Your task to perform on an android device: open app "Nova Launcher" (install if not already installed), go to login, and select forgot password Image 0: 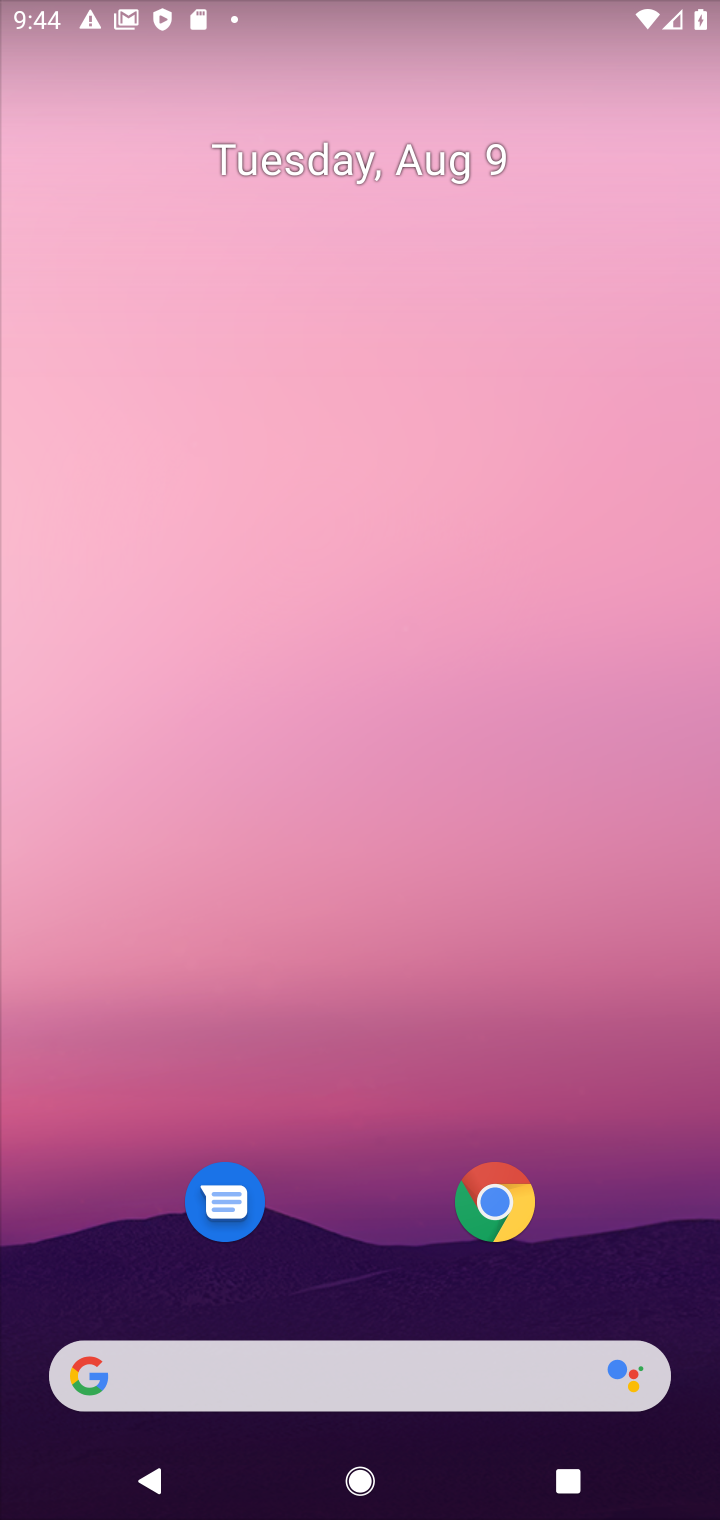
Step 0: drag from (344, 1101) to (365, 237)
Your task to perform on an android device: open app "Nova Launcher" (install if not already installed), go to login, and select forgot password Image 1: 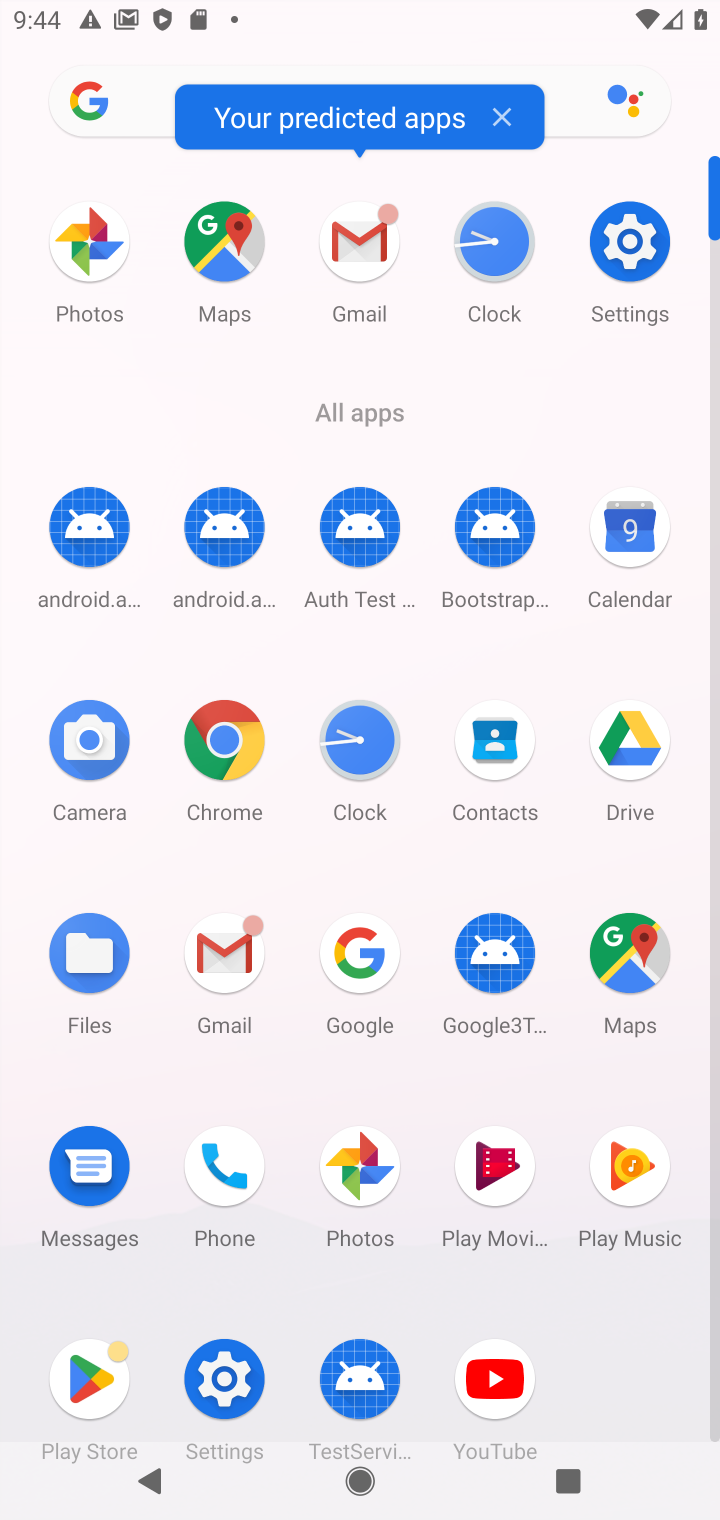
Step 1: click (77, 1391)
Your task to perform on an android device: open app "Nova Launcher" (install if not already installed), go to login, and select forgot password Image 2: 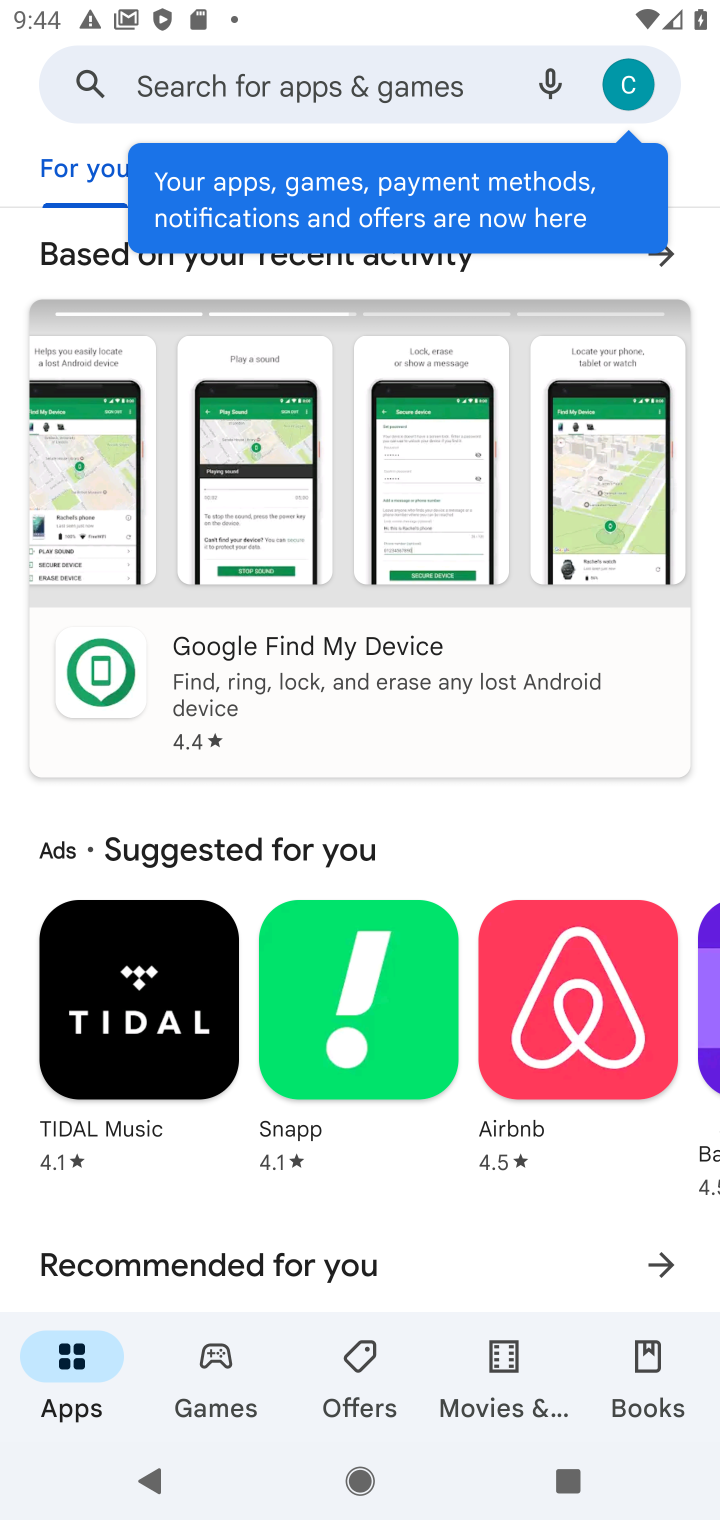
Step 2: click (233, 63)
Your task to perform on an android device: open app "Nova Launcher" (install if not already installed), go to login, and select forgot password Image 3: 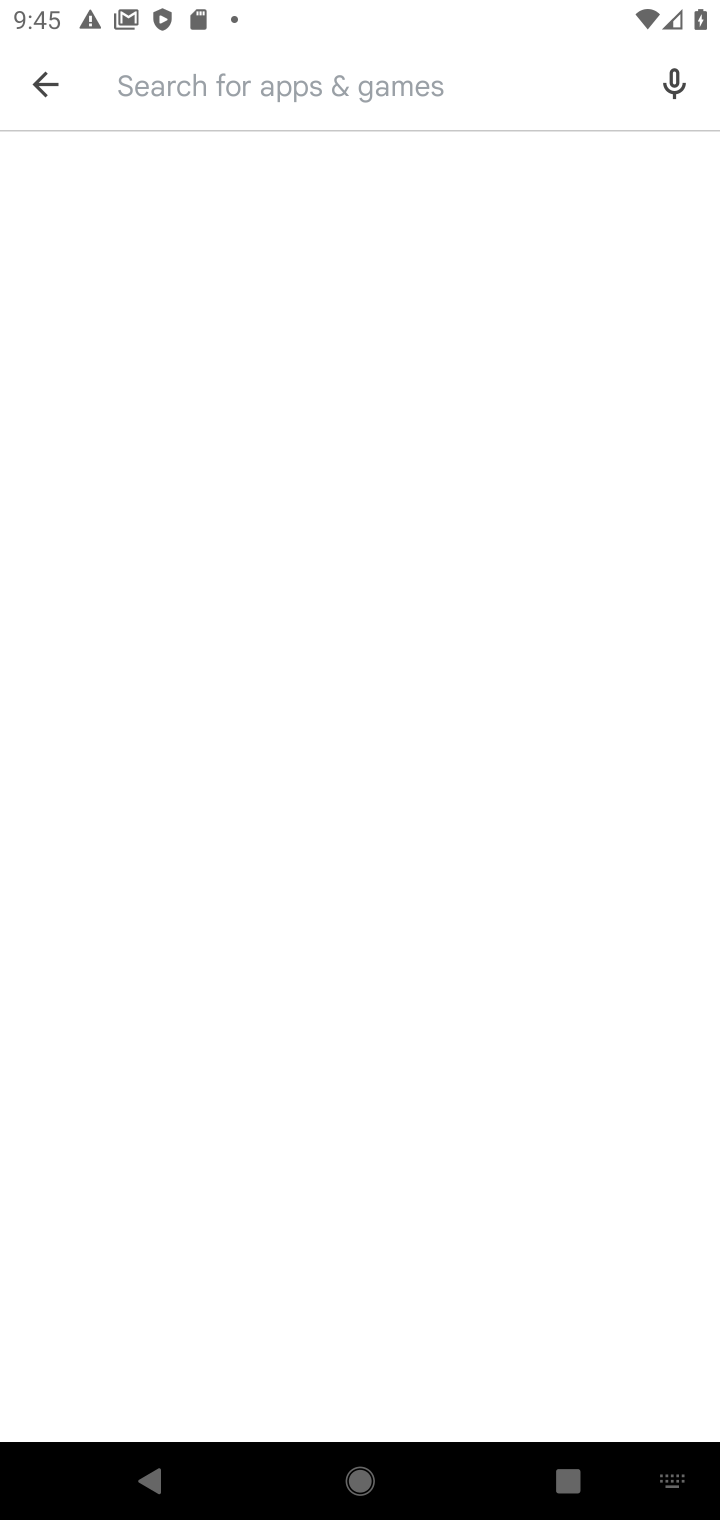
Step 3: type "nova launcher"
Your task to perform on an android device: open app "Nova Launcher" (install if not already installed), go to login, and select forgot password Image 4: 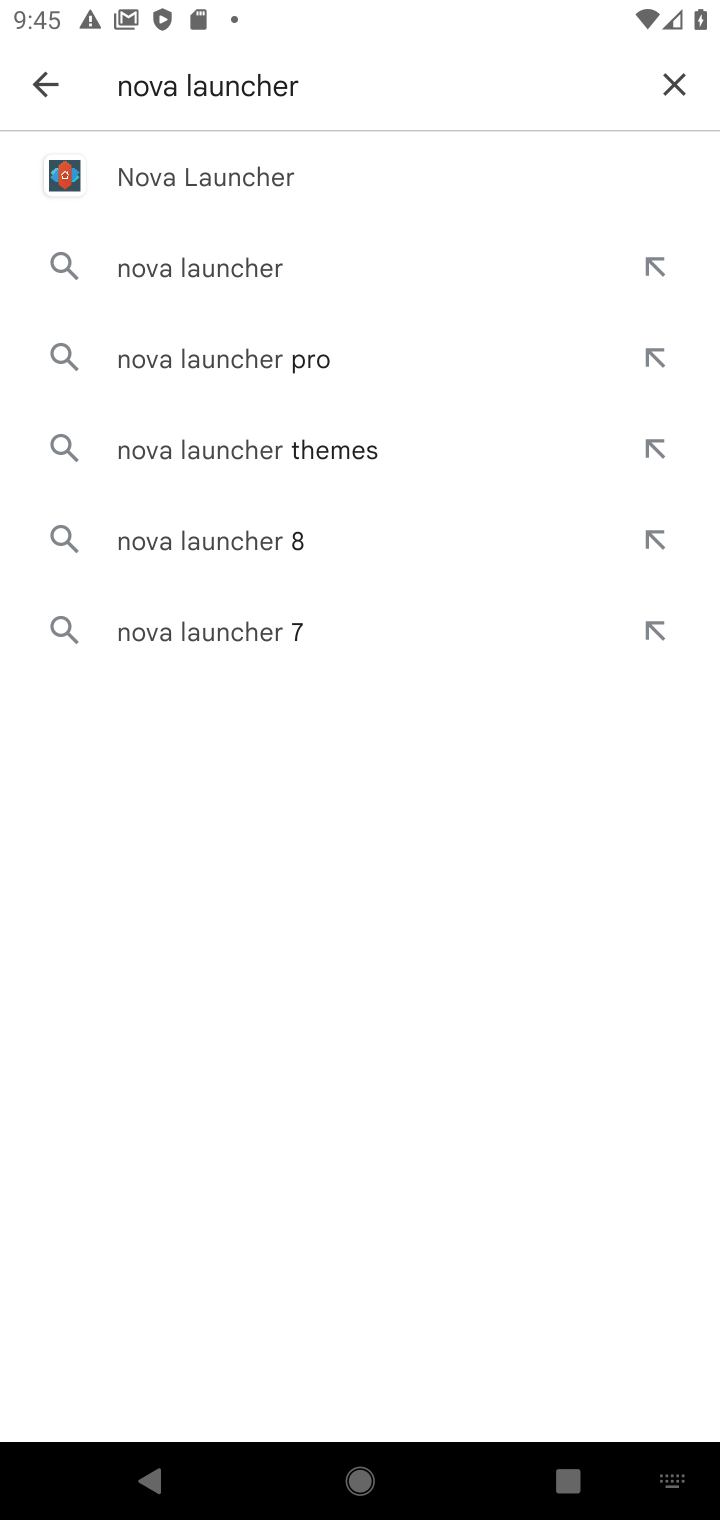
Step 4: click (194, 178)
Your task to perform on an android device: open app "Nova Launcher" (install if not already installed), go to login, and select forgot password Image 5: 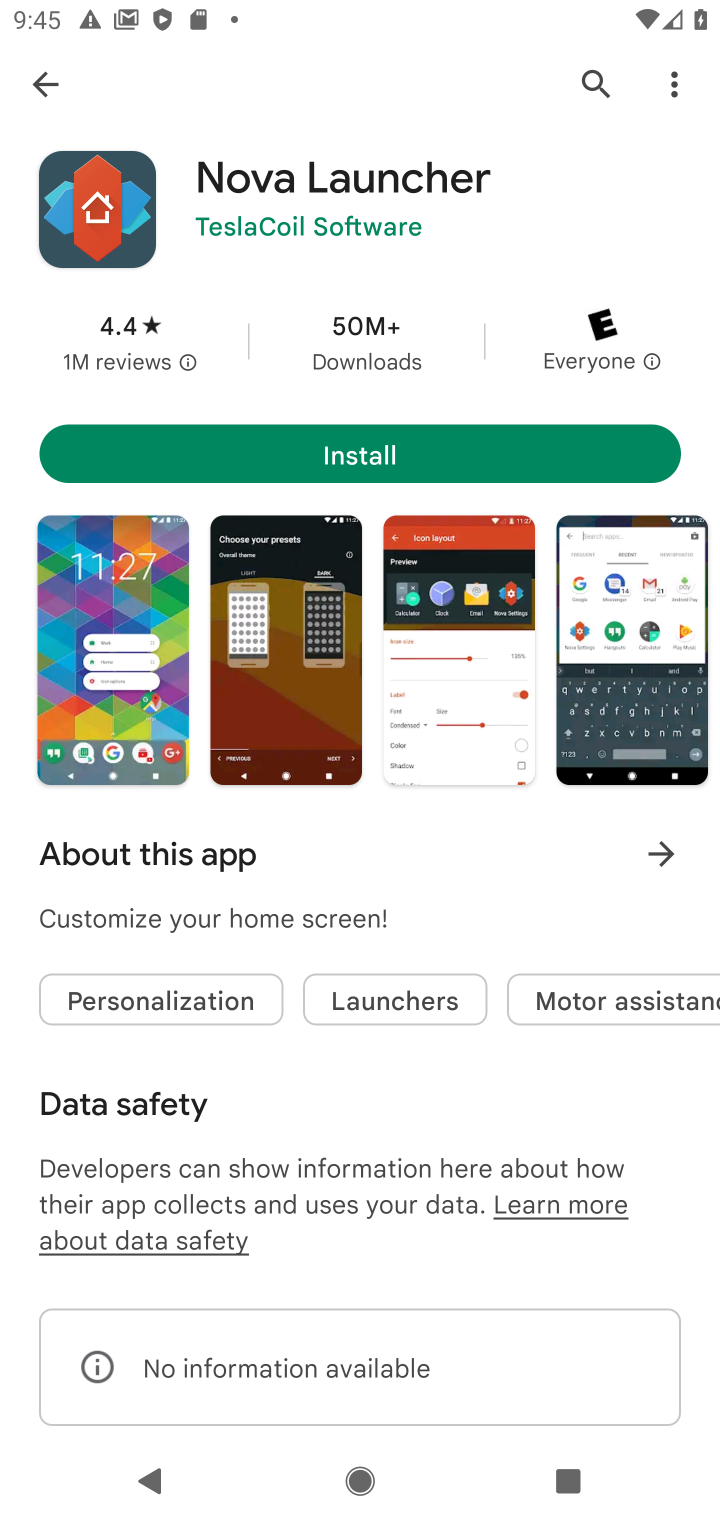
Step 5: click (456, 460)
Your task to perform on an android device: open app "Nova Launcher" (install if not already installed), go to login, and select forgot password Image 6: 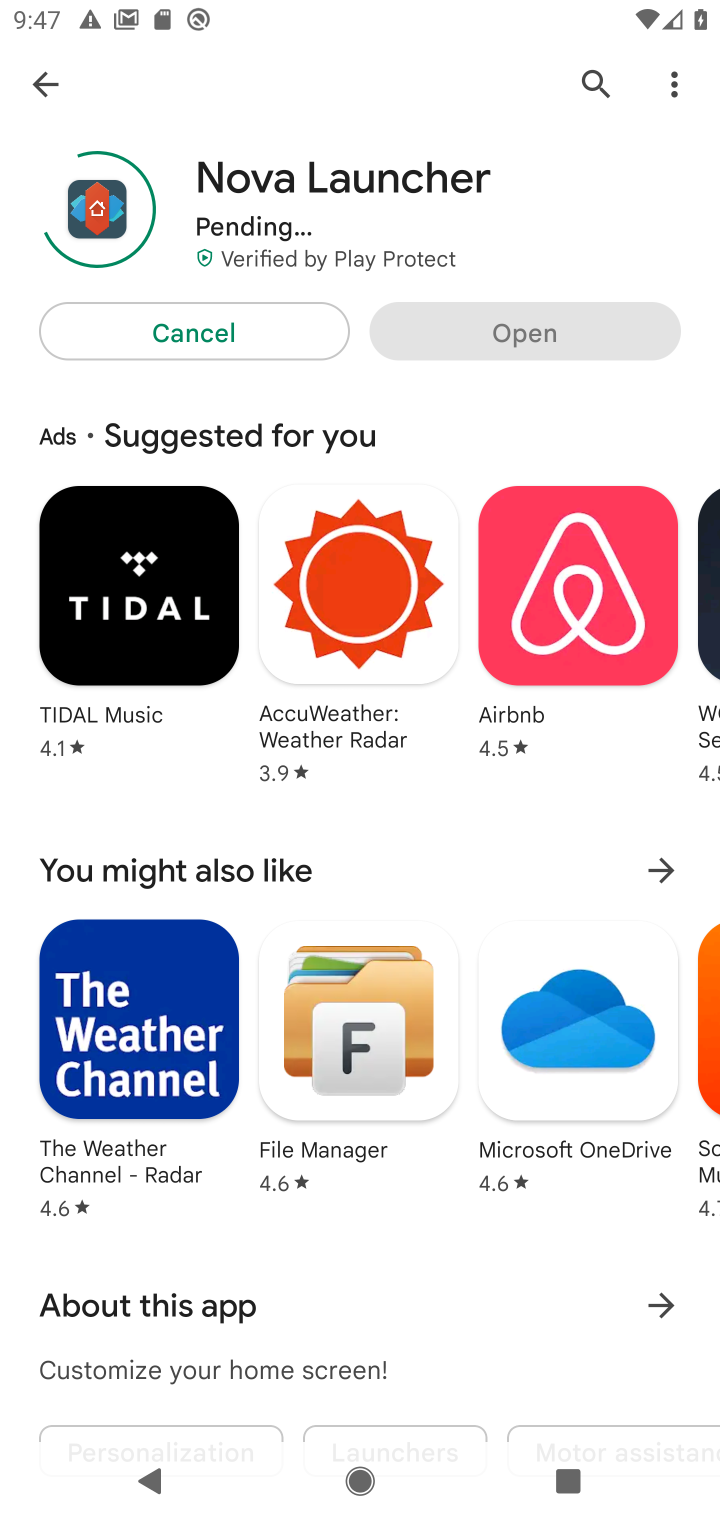
Step 6: task complete